Your task to perform on an android device: View the shopping cart on bestbuy.com. Add "usb-c" to the cart on bestbuy.com Image 0: 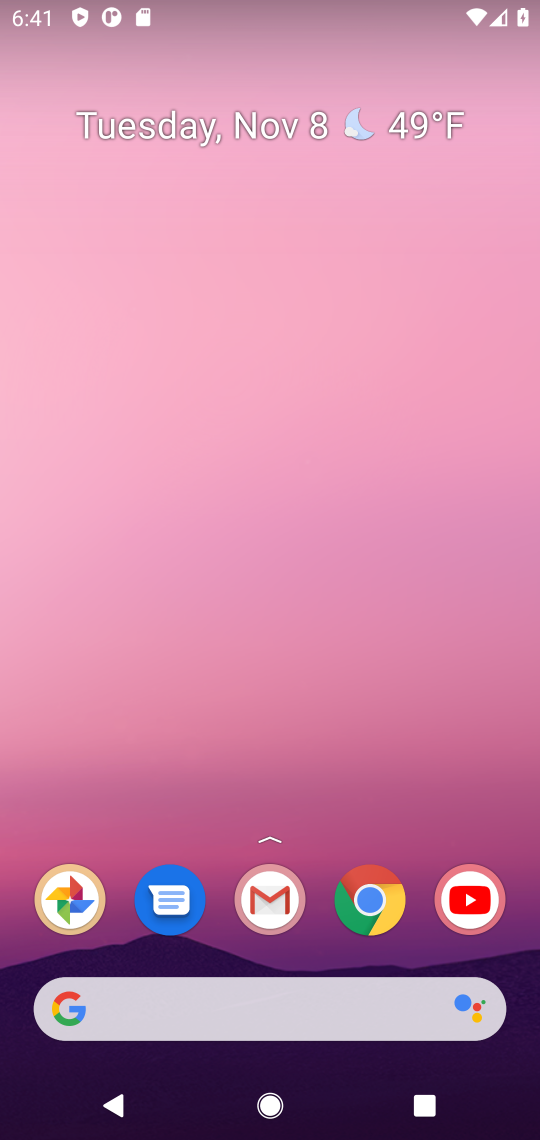
Step 0: press home button
Your task to perform on an android device: View the shopping cart on bestbuy.com. Add "usb-c" to the cart on bestbuy.com Image 1: 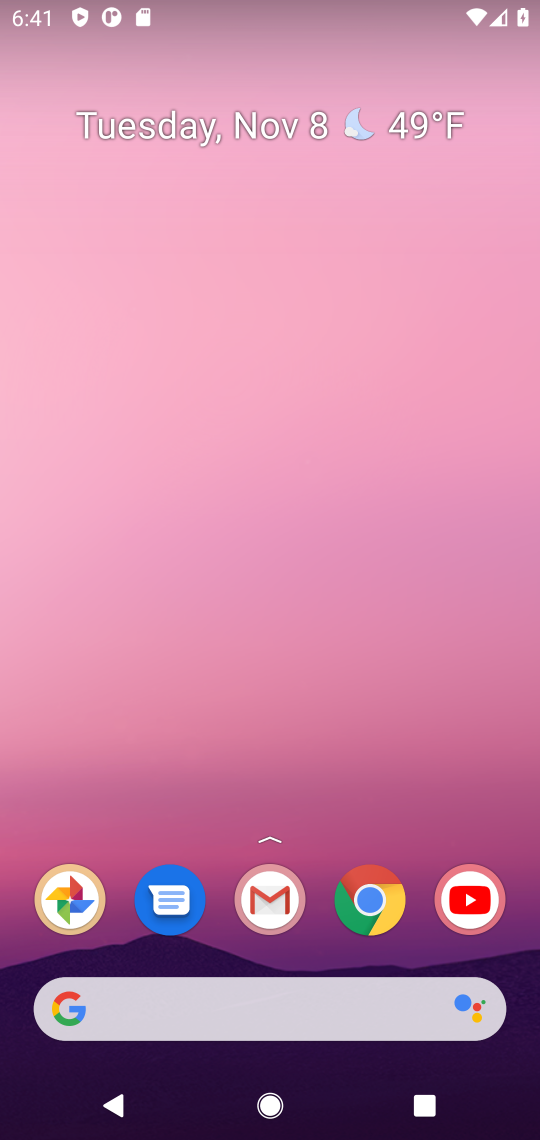
Step 1: drag from (158, 943) to (240, 164)
Your task to perform on an android device: View the shopping cart on bestbuy.com. Add "usb-c" to the cart on bestbuy.com Image 2: 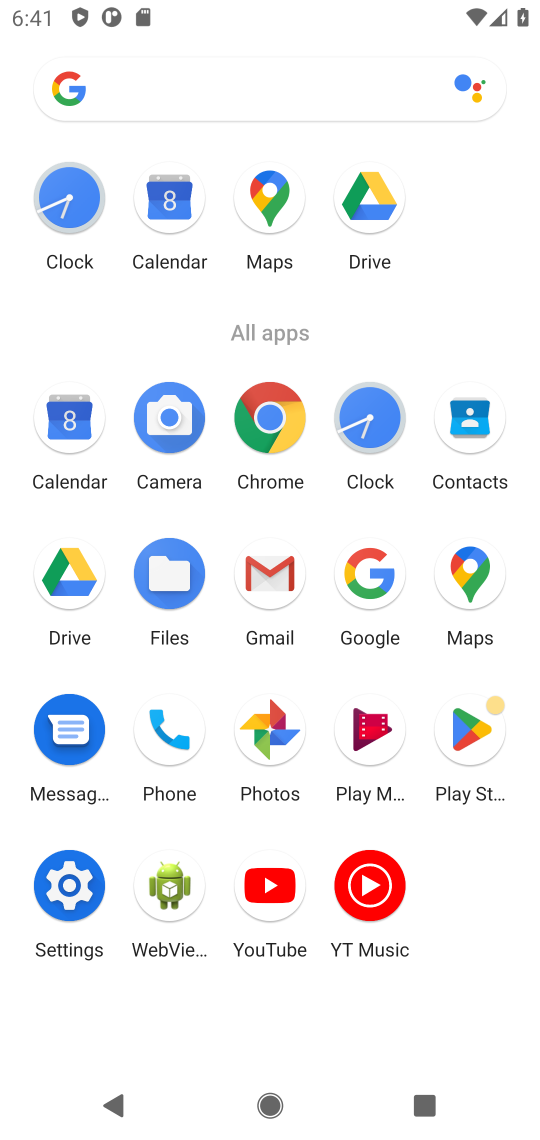
Step 2: click (365, 573)
Your task to perform on an android device: View the shopping cart on bestbuy.com. Add "usb-c" to the cart on bestbuy.com Image 3: 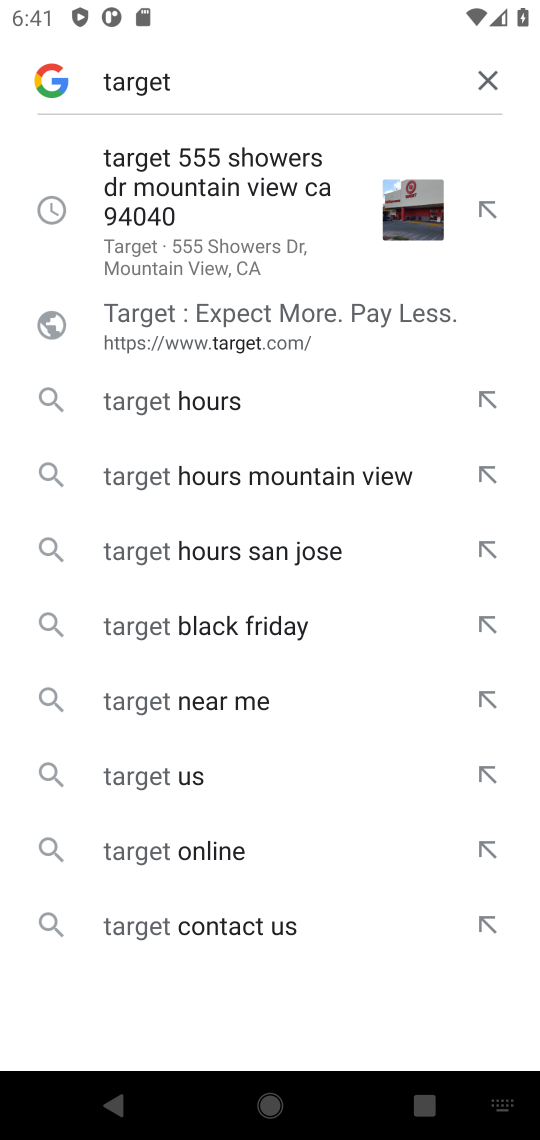
Step 3: click (494, 71)
Your task to perform on an android device: View the shopping cart on bestbuy.com. Add "usb-c" to the cart on bestbuy.com Image 4: 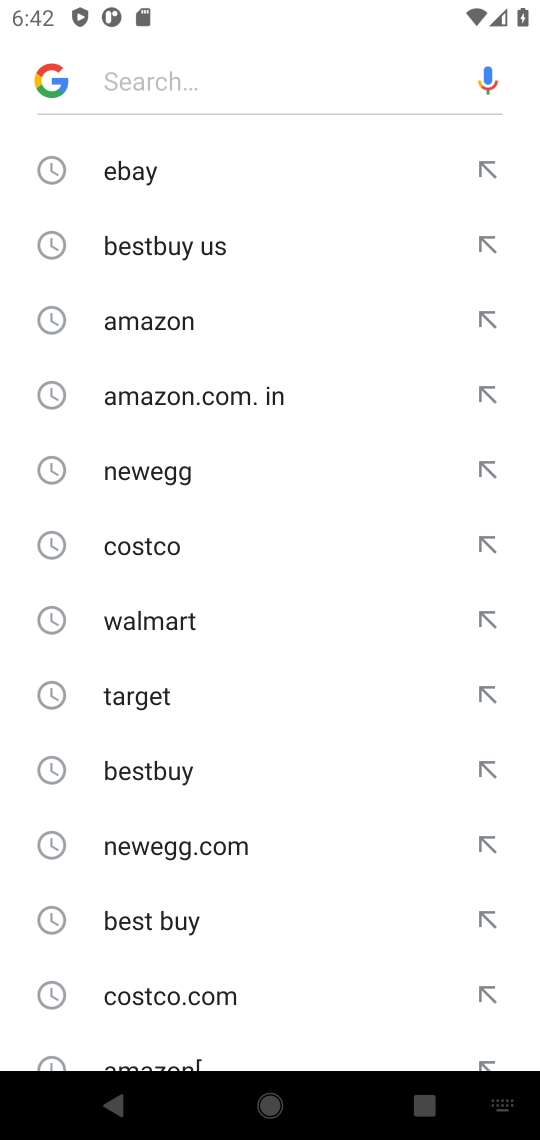
Step 4: click (194, 228)
Your task to perform on an android device: View the shopping cart on bestbuy.com. Add "usb-c" to the cart on bestbuy.com Image 5: 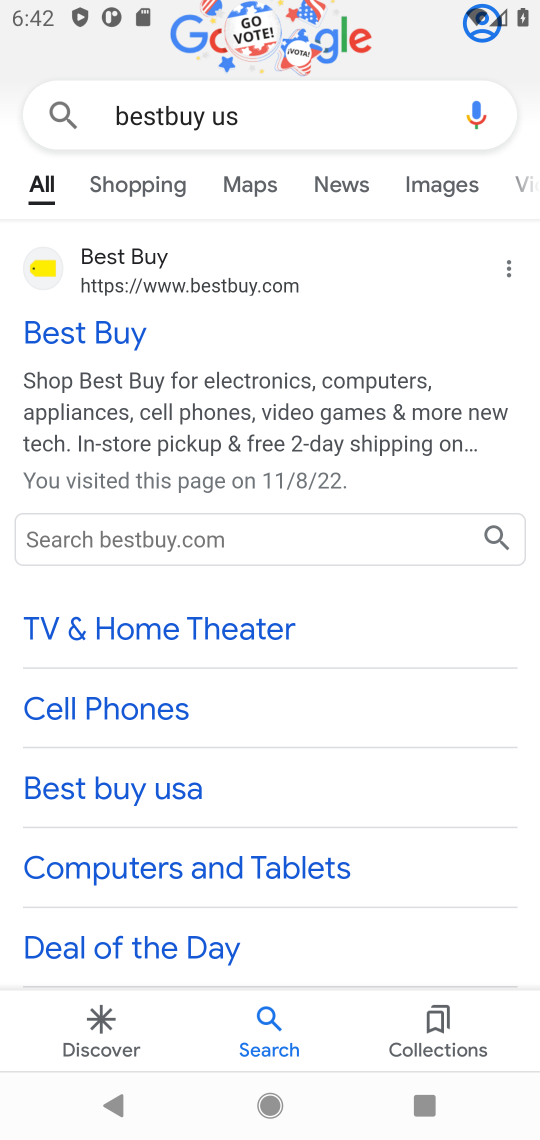
Step 5: click (44, 276)
Your task to perform on an android device: View the shopping cart on bestbuy.com. Add "usb-c" to the cart on bestbuy.com Image 6: 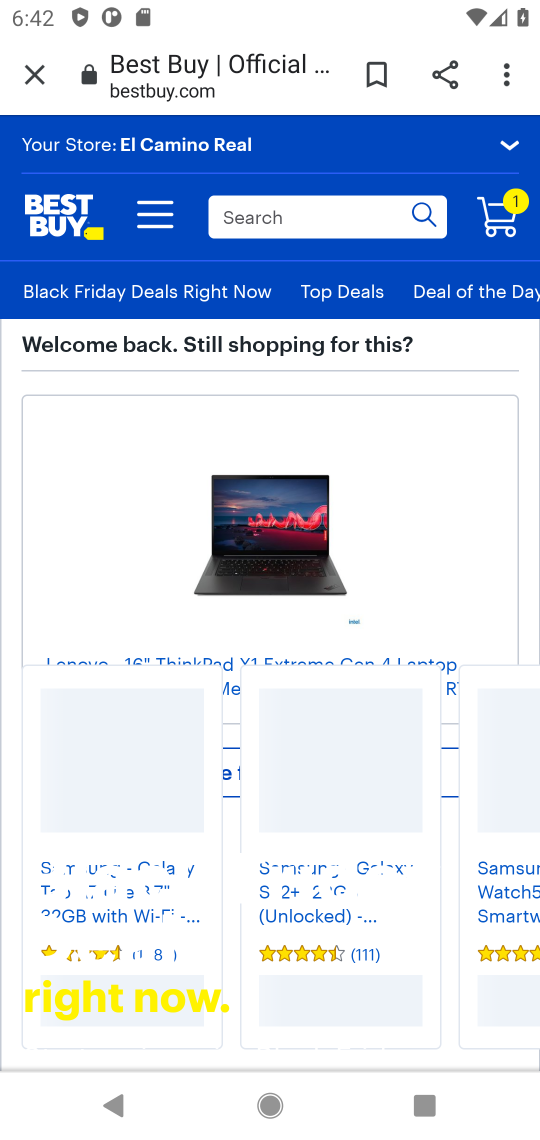
Step 6: click (314, 207)
Your task to perform on an android device: View the shopping cart on bestbuy.com. Add "usb-c" to the cart on bestbuy.com Image 7: 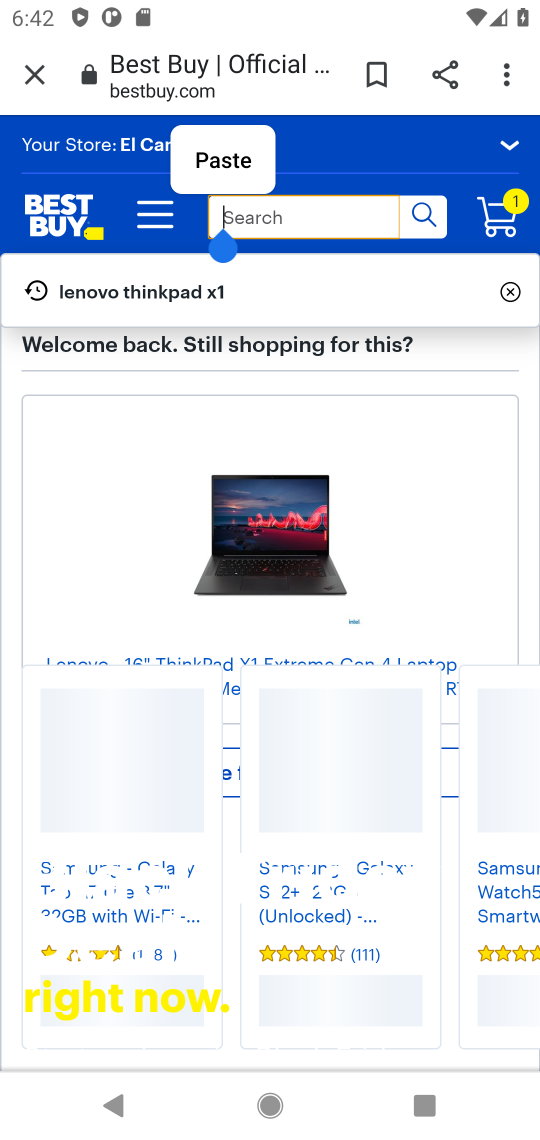
Step 7: click (320, 211)
Your task to perform on an android device: View the shopping cart on bestbuy.com. Add "usb-c" to the cart on bestbuy.com Image 8: 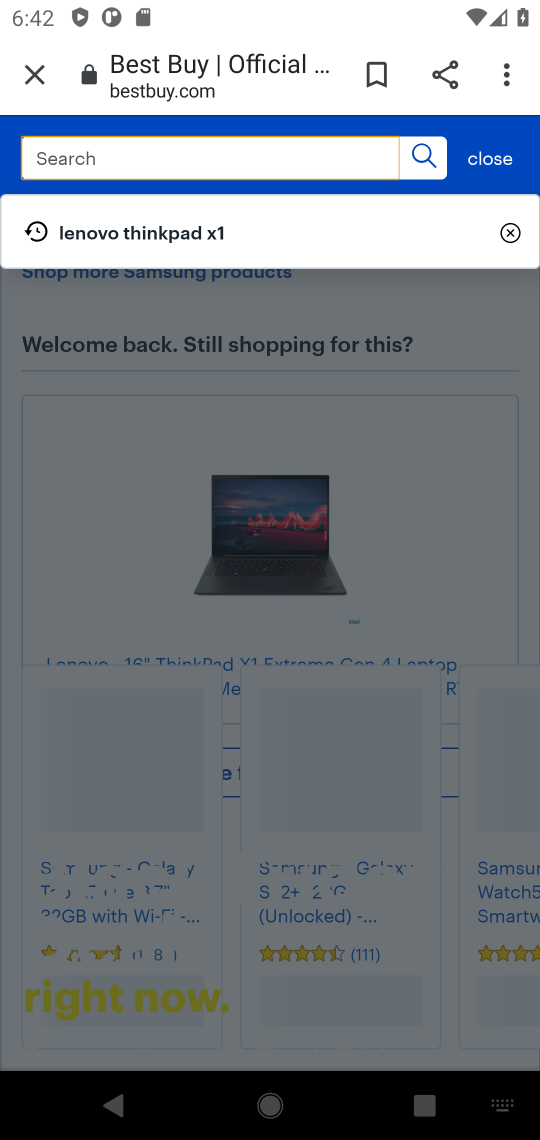
Step 8: type "usb-c" "
Your task to perform on an android device: View the shopping cart on bestbuy.com. Add "usb-c" to the cart on bestbuy.com Image 9: 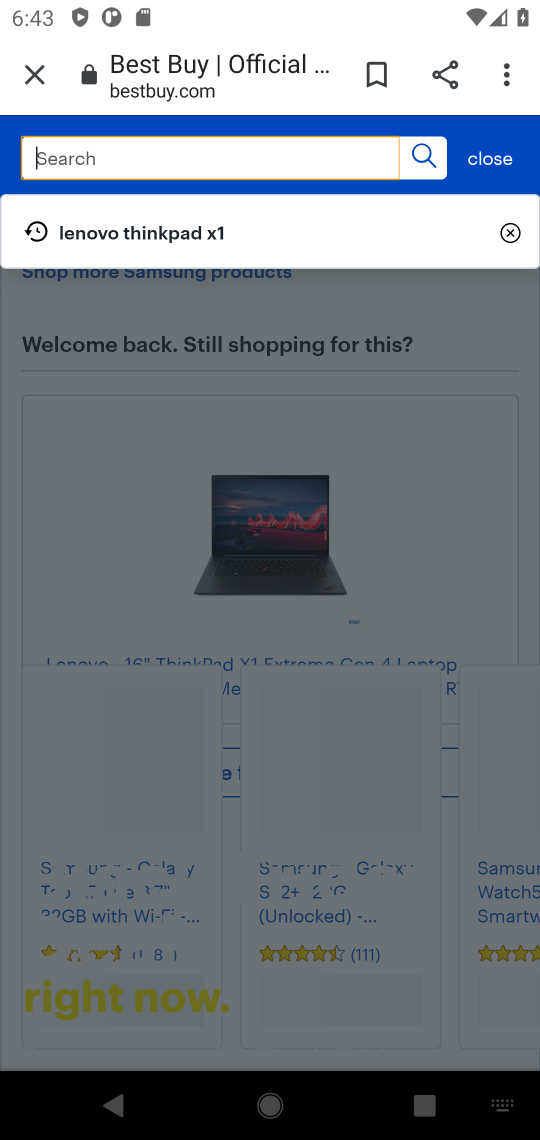
Step 9: click (176, 142)
Your task to perform on an android device: View the shopping cart on bestbuy.com. Add "usb-c" to the cart on bestbuy.com Image 10: 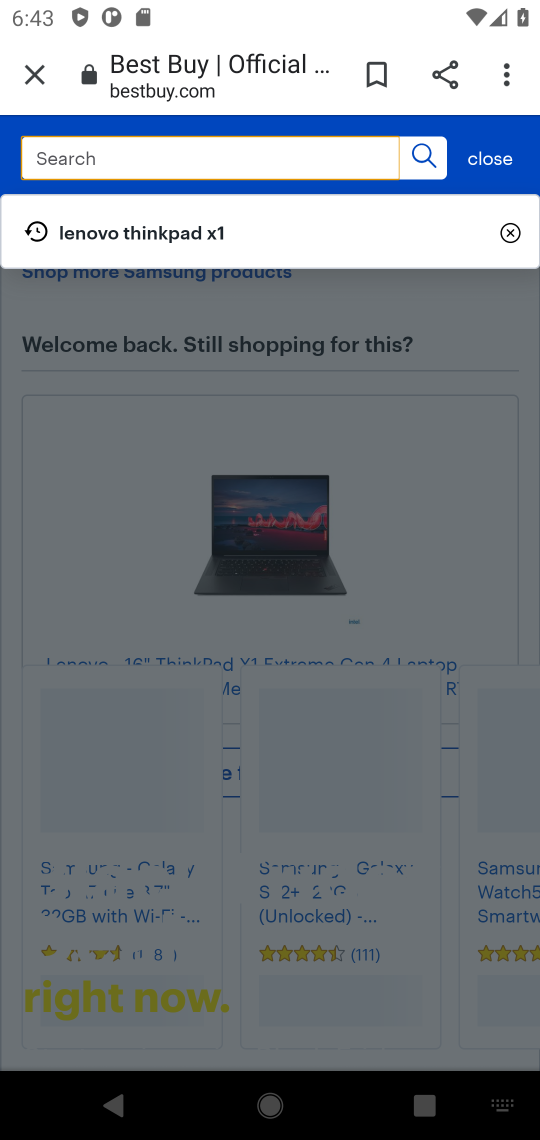
Step 10: type "usb "
Your task to perform on an android device: View the shopping cart on bestbuy.com. Add "usb-c" to the cart on bestbuy.com Image 11: 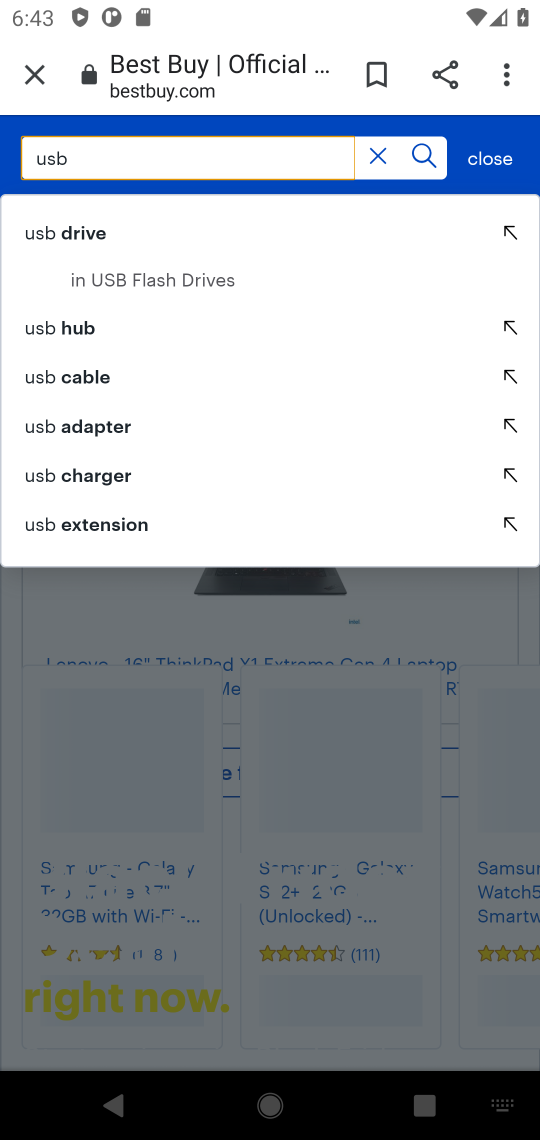
Step 11: click (106, 376)
Your task to perform on an android device: View the shopping cart on bestbuy.com. Add "usb-c" to the cart on bestbuy.com Image 12: 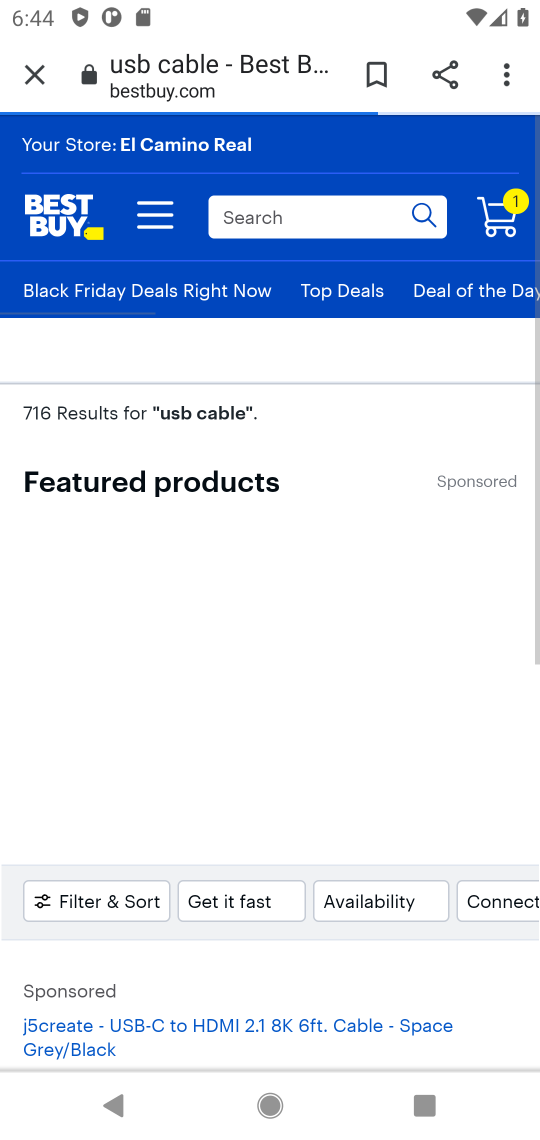
Step 12: click (418, 144)
Your task to perform on an android device: View the shopping cart on bestbuy.com. Add "usb-c" to the cart on bestbuy.com Image 13: 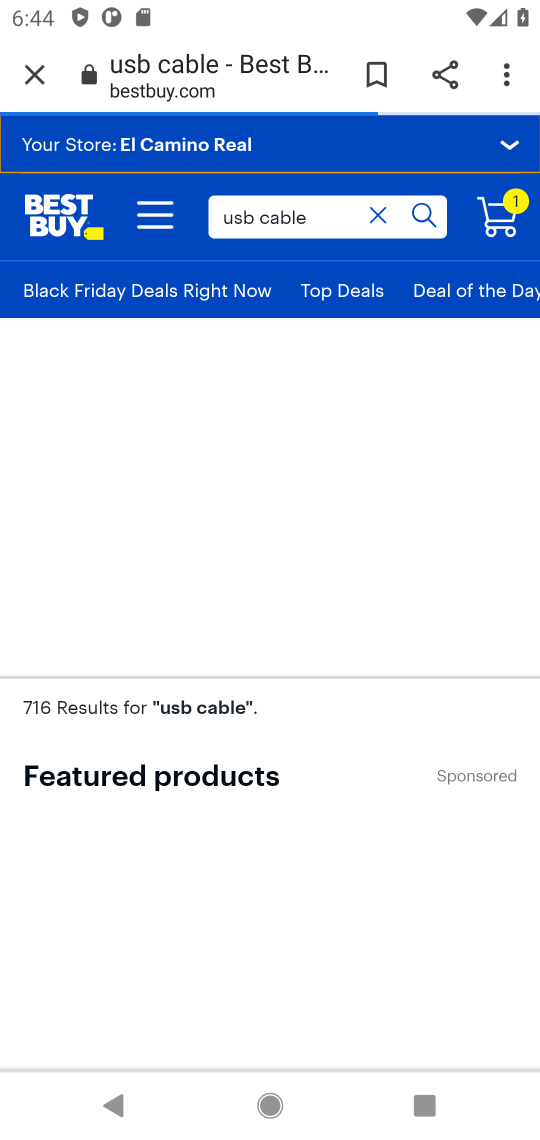
Step 13: drag from (309, 924) to (382, 304)
Your task to perform on an android device: View the shopping cart on bestbuy.com. Add "usb-c" to the cart on bestbuy.com Image 14: 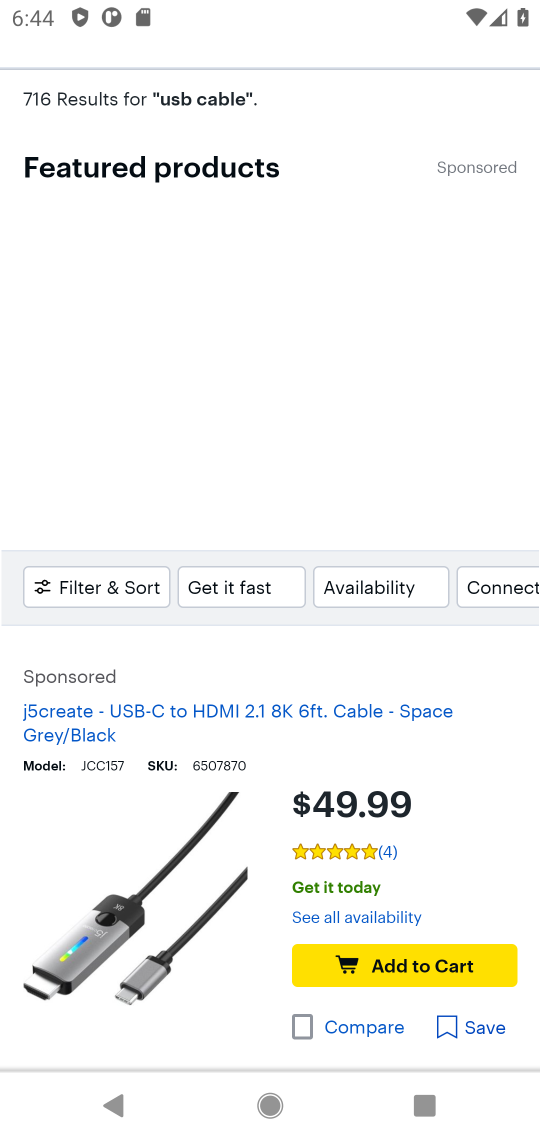
Step 14: click (402, 966)
Your task to perform on an android device: View the shopping cart on bestbuy.com. Add "usb-c" to the cart on bestbuy.com Image 15: 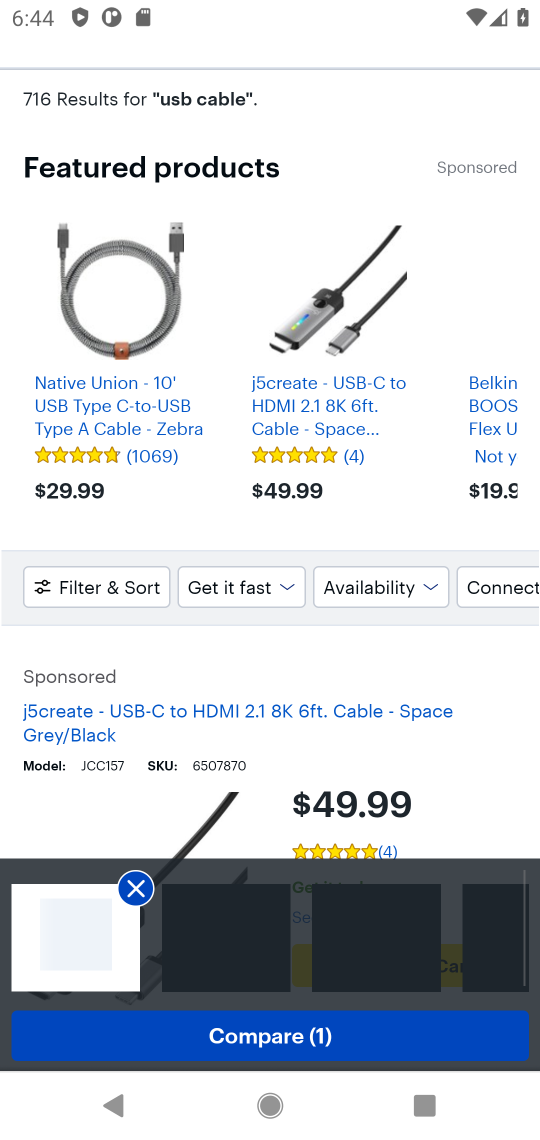
Step 15: click (136, 896)
Your task to perform on an android device: View the shopping cart on bestbuy.com. Add "usb-c" to the cart on bestbuy.com Image 16: 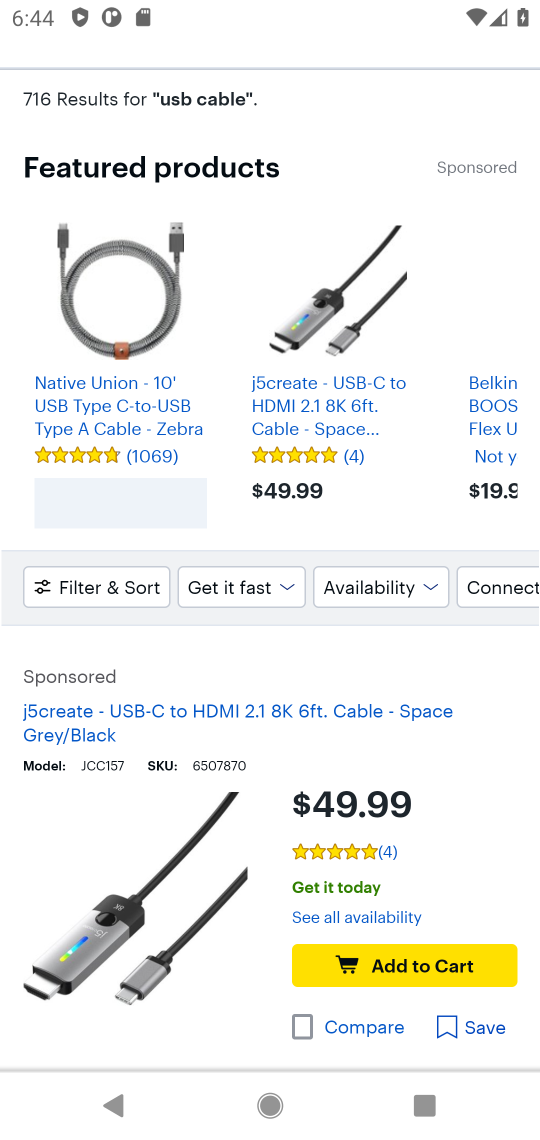
Step 16: click (363, 954)
Your task to perform on an android device: View the shopping cart on bestbuy.com. Add "usb-c" to the cart on bestbuy.com Image 17: 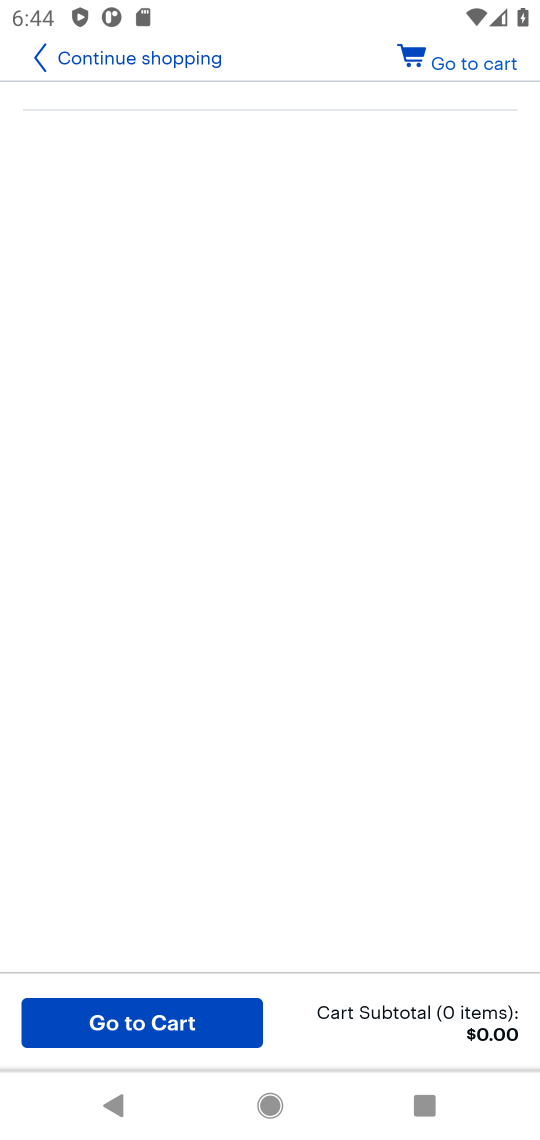
Step 17: task complete